Your task to perform on an android device: What's on my calendar today? Image 0: 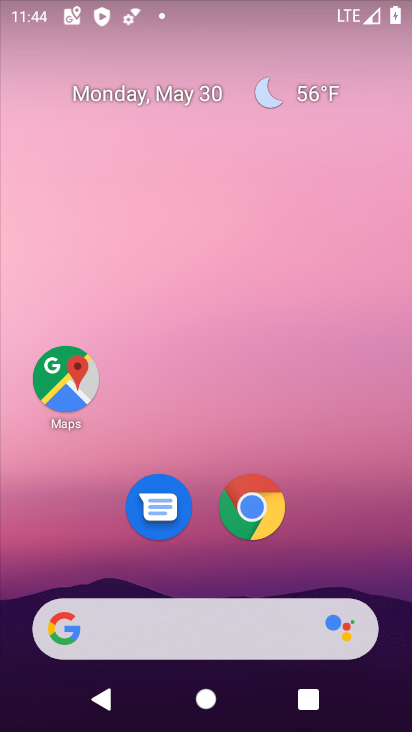
Step 0: drag from (344, 511) to (301, 135)
Your task to perform on an android device: What's on my calendar today? Image 1: 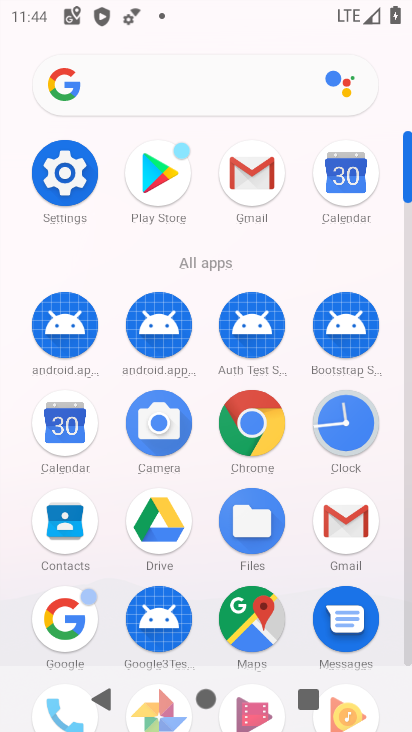
Step 1: click (60, 419)
Your task to perform on an android device: What's on my calendar today? Image 2: 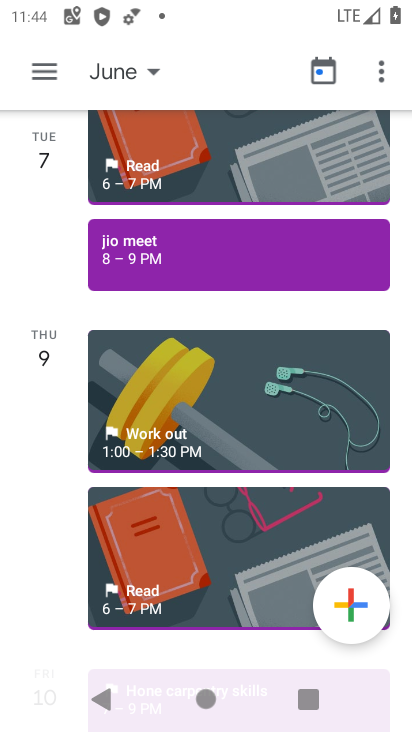
Step 2: task complete